Your task to perform on an android device: toggle notifications settings in the gmail app Image 0: 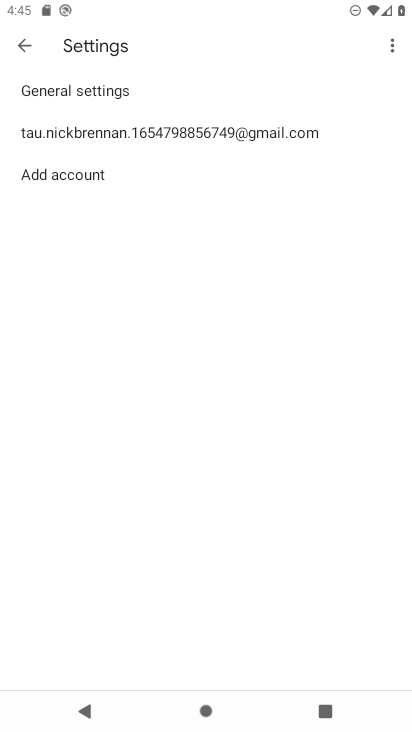
Step 0: click (109, 100)
Your task to perform on an android device: toggle notifications settings in the gmail app Image 1: 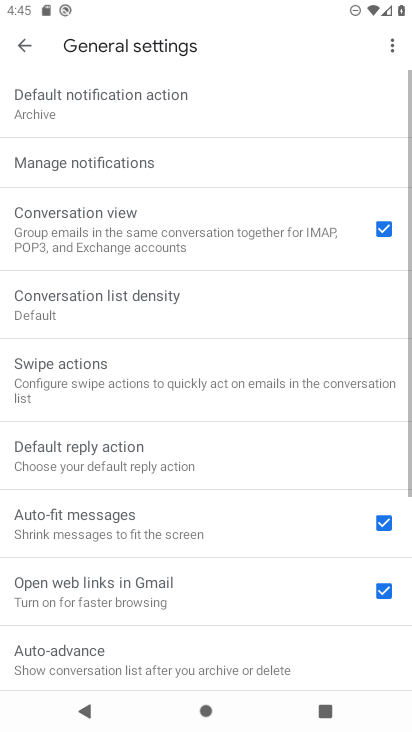
Step 1: click (161, 164)
Your task to perform on an android device: toggle notifications settings in the gmail app Image 2: 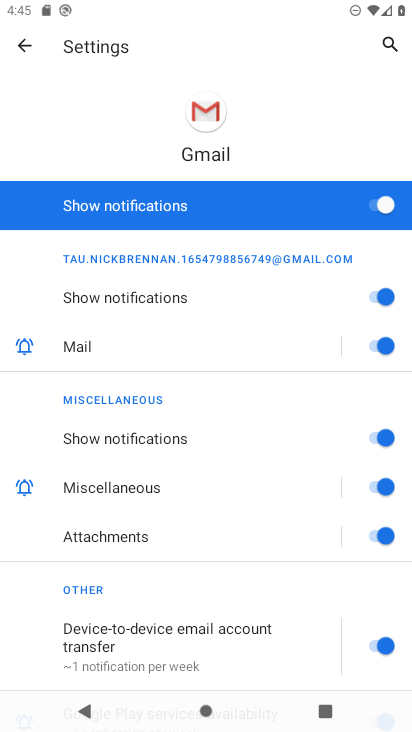
Step 2: click (367, 202)
Your task to perform on an android device: toggle notifications settings in the gmail app Image 3: 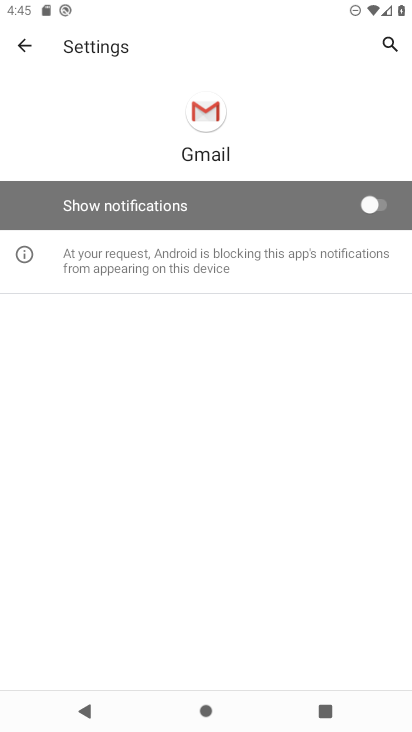
Step 3: task complete